Your task to perform on an android device: Open Youtube and go to "Your channel" Image 0: 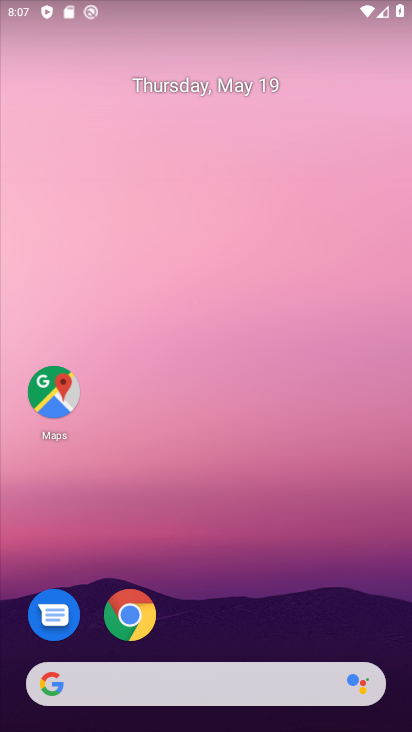
Step 0: drag from (248, 576) to (182, 75)
Your task to perform on an android device: Open Youtube and go to "Your channel" Image 1: 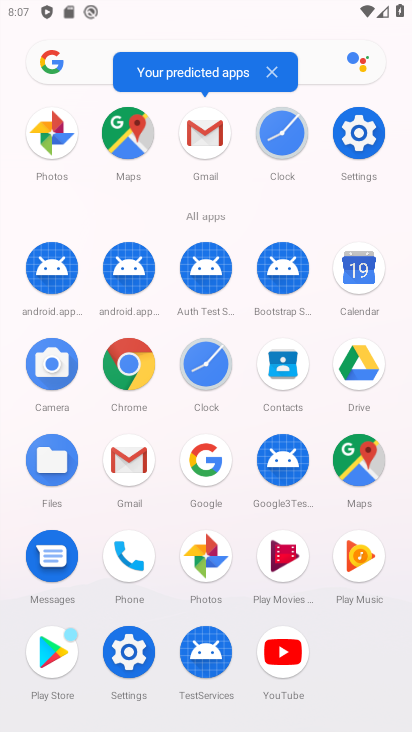
Step 1: click (280, 650)
Your task to perform on an android device: Open Youtube and go to "Your channel" Image 2: 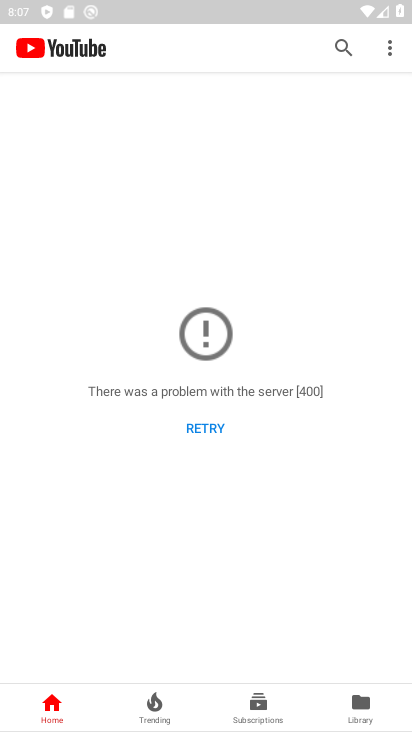
Step 2: click (213, 428)
Your task to perform on an android device: Open Youtube and go to "Your channel" Image 3: 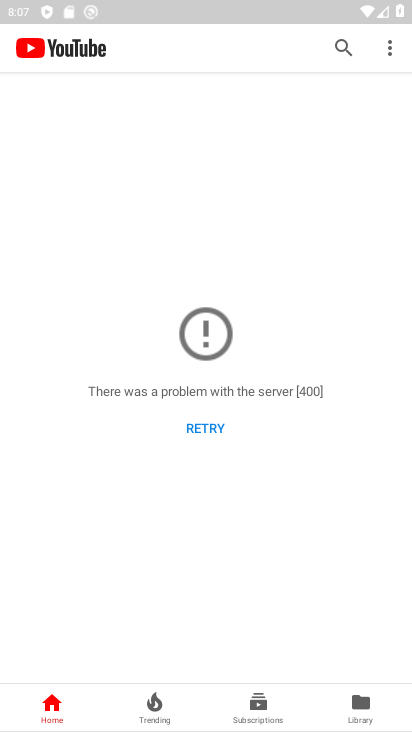
Step 3: click (213, 428)
Your task to perform on an android device: Open Youtube and go to "Your channel" Image 4: 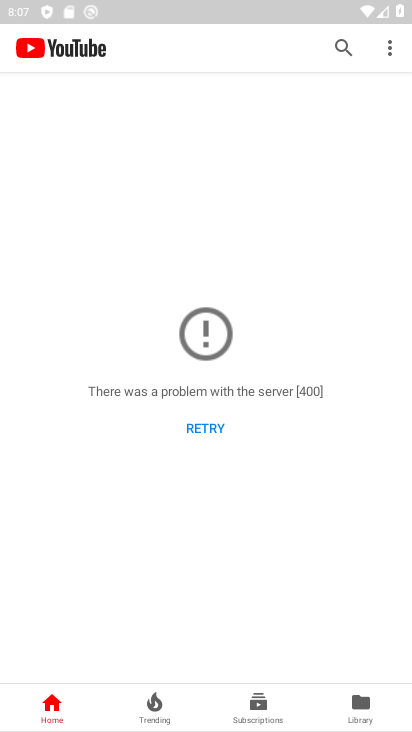
Step 4: click (163, 698)
Your task to perform on an android device: Open Youtube and go to "Your channel" Image 5: 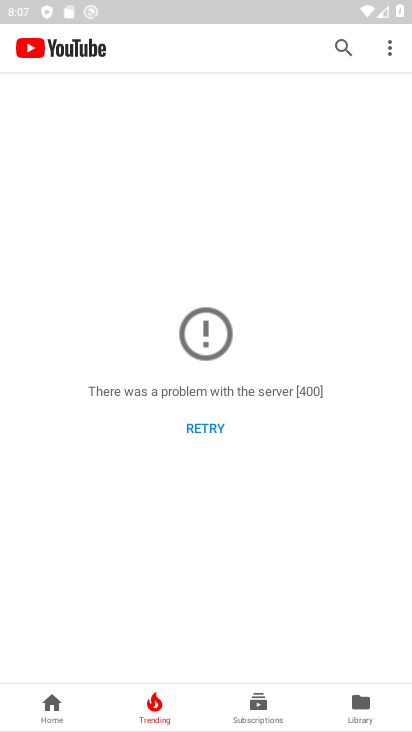
Step 5: click (253, 703)
Your task to perform on an android device: Open Youtube and go to "Your channel" Image 6: 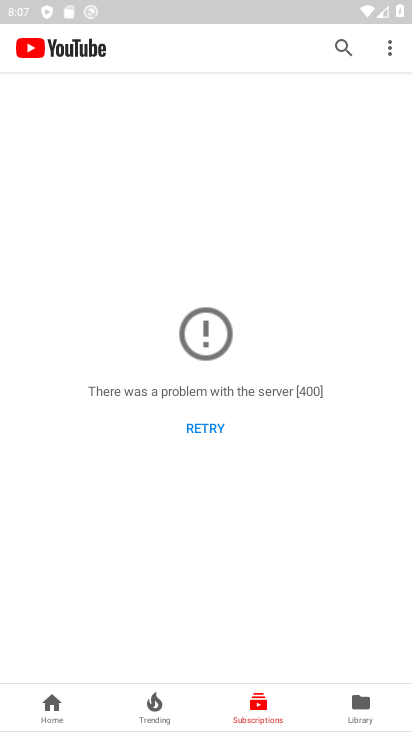
Step 6: click (361, 702)
Your task to perform on an android device: Open Youtube and go to "Your channel" Image 7: 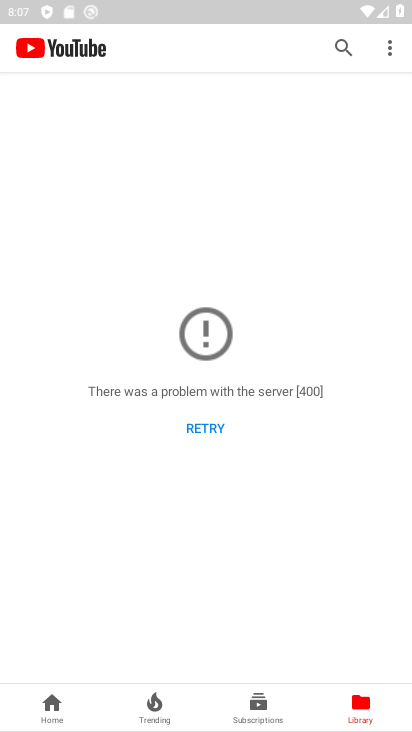
Step 7: click (218, 427)
Your task to perform on an android device: Open Youtube and go to "Your channel" Image 8: 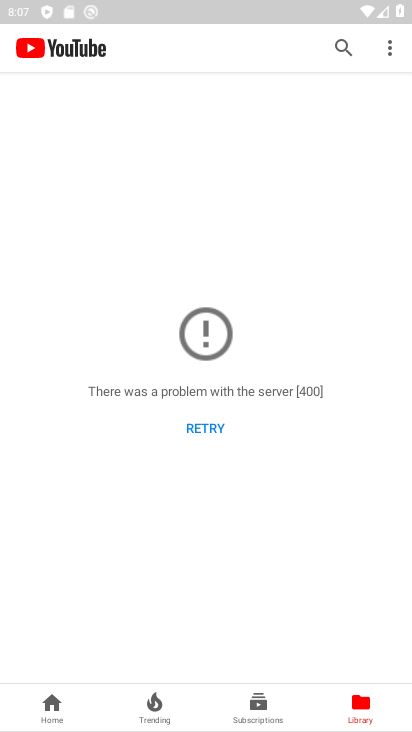
Step 8: task complete